Your task to perform on an android device: find snoozed emails in the gmail app Image 0: 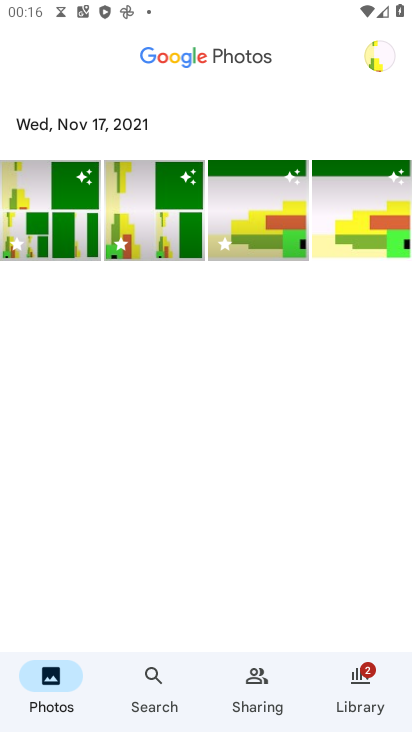
Step 0: press back button
Your task to perform on an android device: find snoozed emails in the gmail app Image 1: 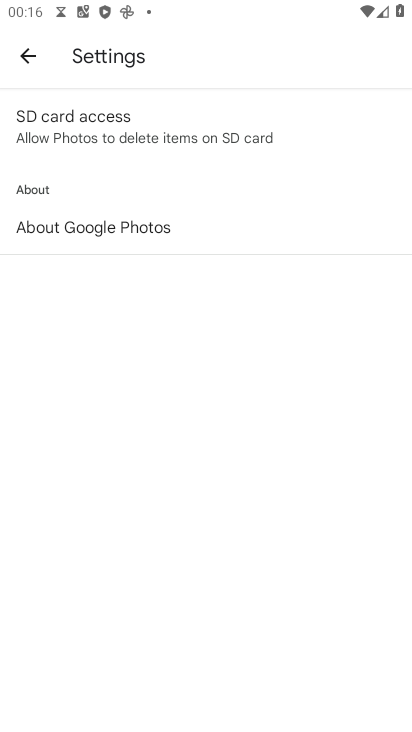
Step 1: press back button
Your task to perform on an android device: find snoozed emails in the gmail app Image 2: 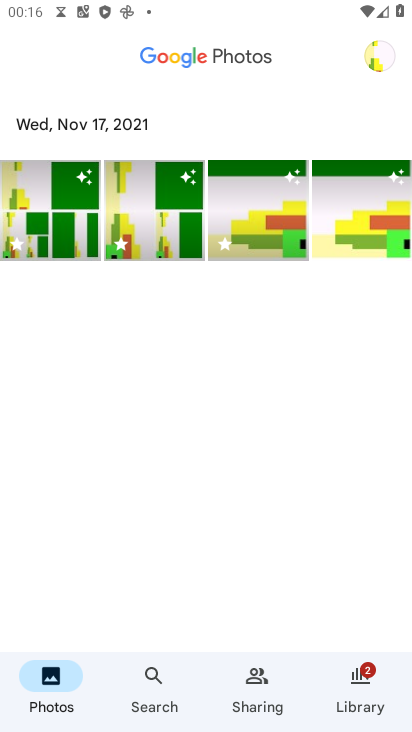
Step 2: press back button
Your task to perform on an android device: find snoozed emails in the gmail app Image 3: 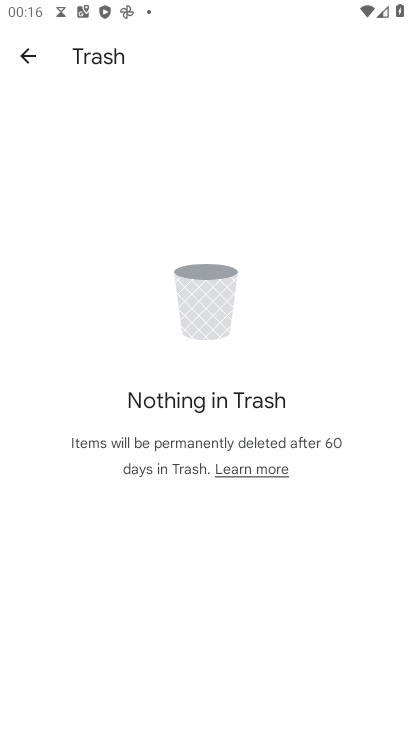
Step 3: press back button
Your task to perform on an android device: find snoozed emails in the gmail app Image 4: 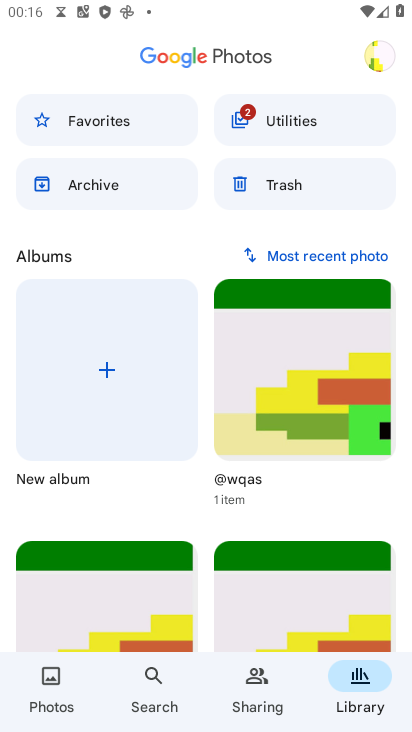
Step 4: press back button
Your task to perform on an android device: find snoozed emails in the gmail app Image 5: 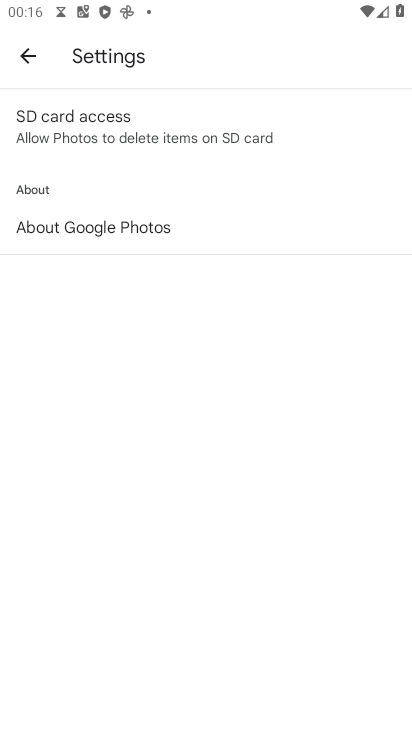
Step 5: press back button
Your task to perform on an android device: find snoozed emails in the gmail app Image 6: 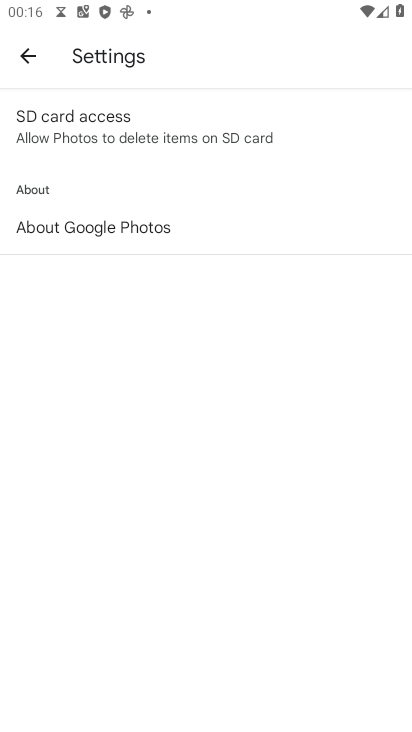
Step 6: press back button
Your task to perform on an android device: find snoozed emails in the gmail app Image 7: 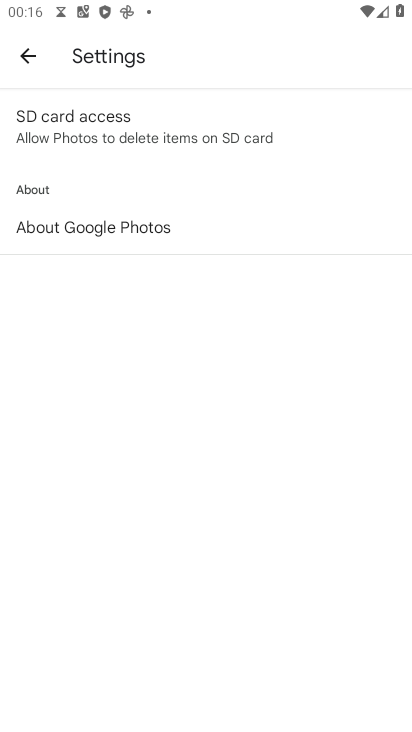
Step 7: press back button
Your task to perform on an android device: find snoozed emails in the gmail app Image 8: 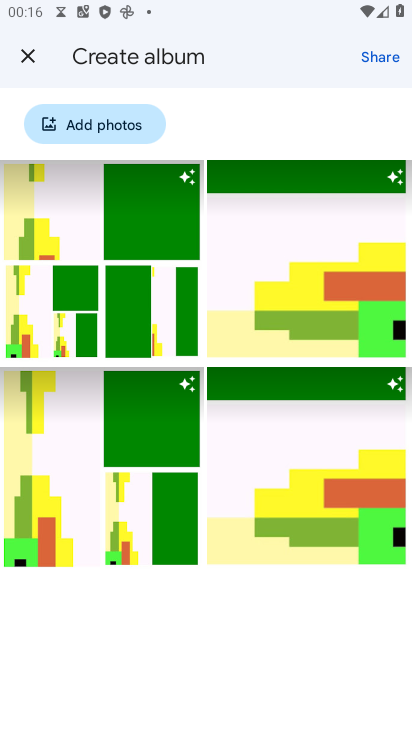
Step 8: press back button
Your task to perform on an android device: find snoozed emails in the gmail app Image 9: 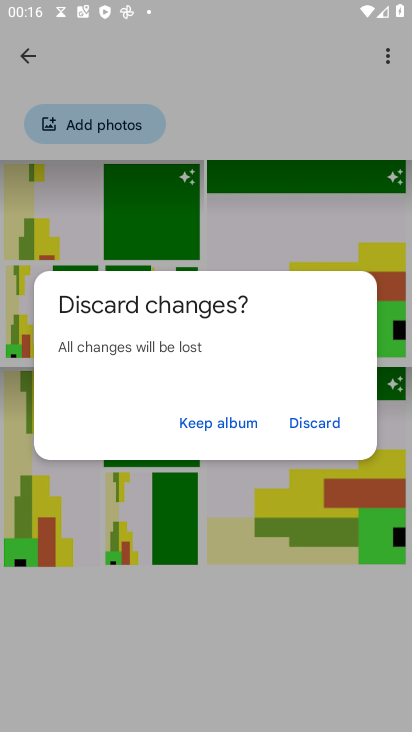
Step 9: press back button
Your task to perform on an android device: find snoozed emails in the gmail app Image 10: 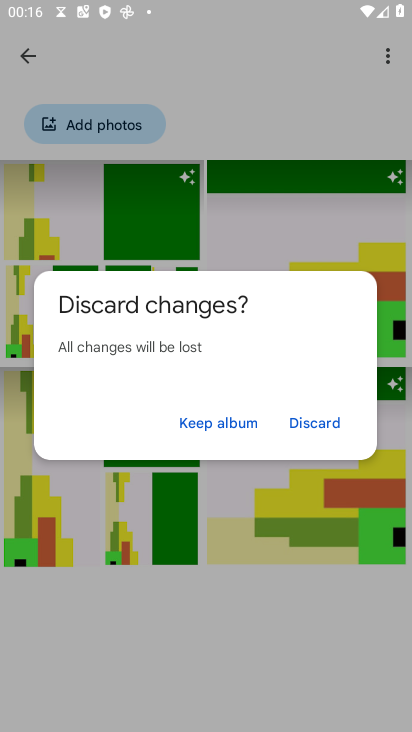
Step 10: press back button
Your task to perform on an android device: find snoozed emails in the gmail app Image 11: 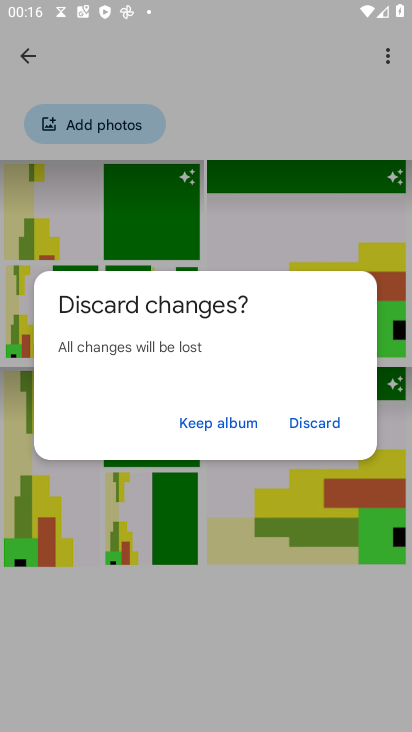
Step 11: press back button
Your task to perform on an android device: find snoozed emails in the gmail app Image 12: 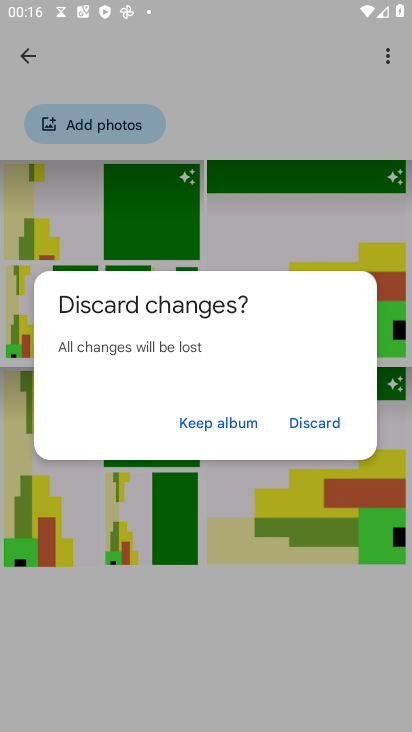
Step 12: press back button
Your task to perform on an android device: find snoozed emails in the gmail app Image 13: 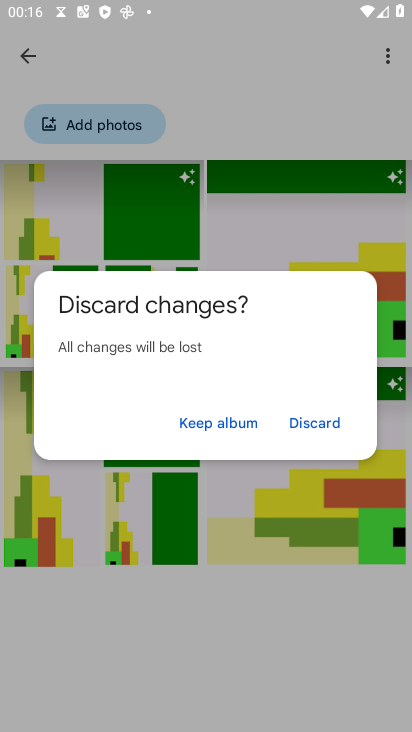
Step 13: press home button
Your task to perform on an android device: find snoozed emails in the gmail app Image 14: 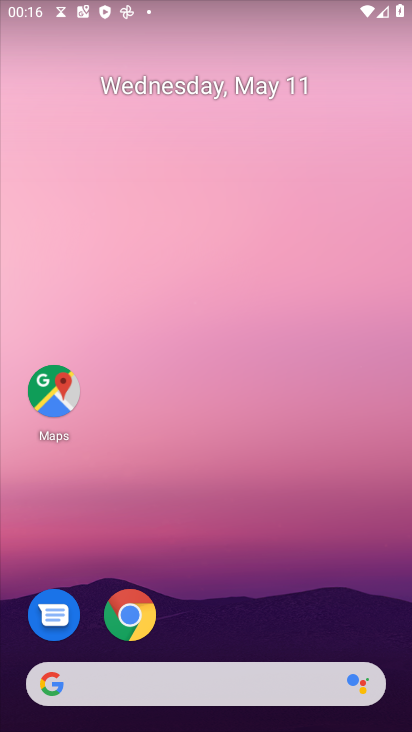
Step 14: drag from (191, 561) to (189, 143)
Your task to perform on an android device: find snoozed emails in the gmail app Image 15: 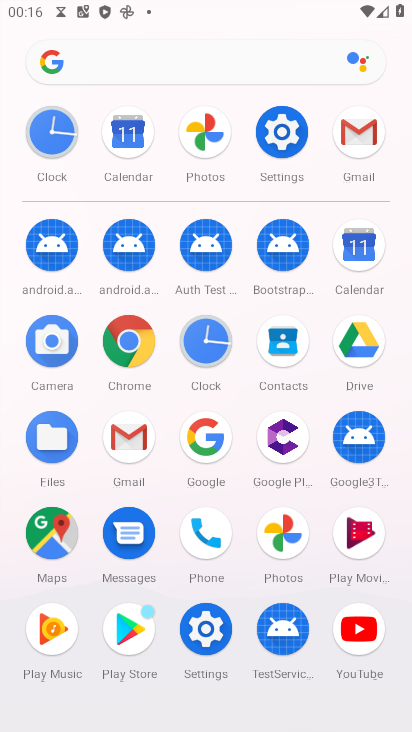
Step 15: click (361, 132)
Your task to perform on an android device: find snoozed emails in the gmail app Image 16: 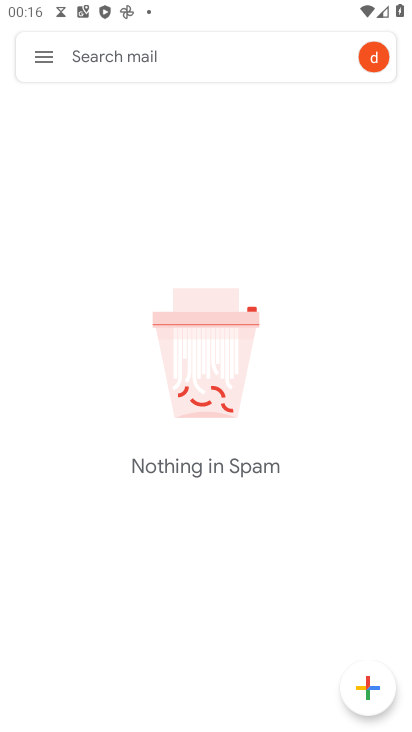
Step 16: click (45, 65)
Your task to perform on an android device: find snoozed emails in the gmail app Image 17: 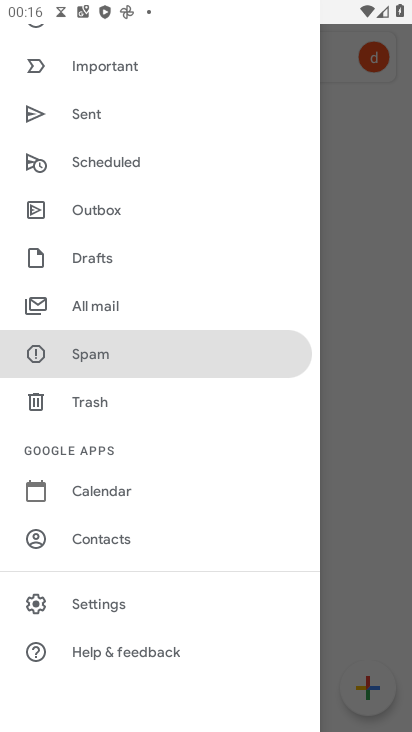
Step 17: drag from (133, 297) to (123, 407)
Your task to perform on an android device: find snoozed emails in the gmail app Image 18: 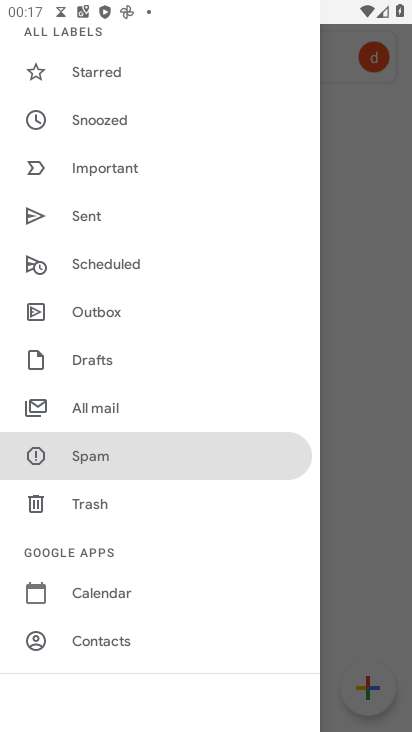
Step 18: click (110, 115)
Your task to perform on an android device: find snoozed emails in the gmail app Image 19: 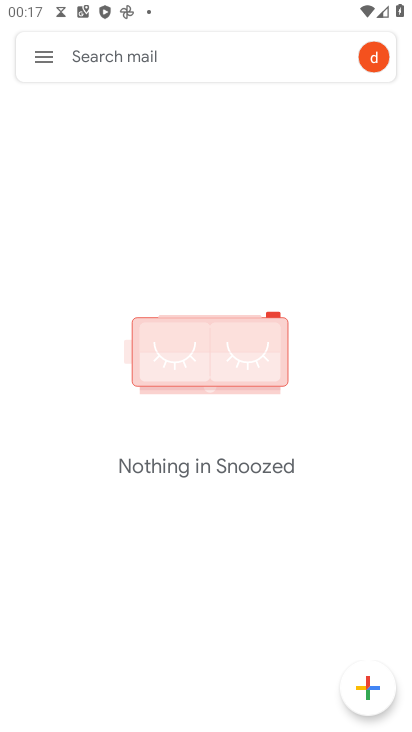
Step 19: click (44, 57)
Your task to perform on an android device: find snoozed emails in the gmail app Image 20: 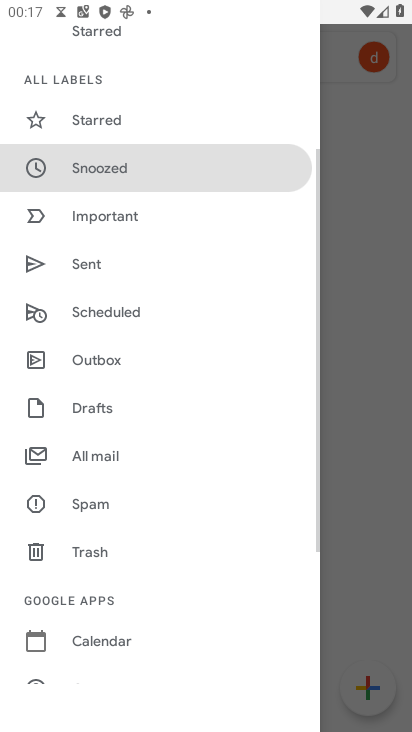
Step 20: drag from (134, 178) to (133, 343)
Your task to perform on an android device: find snoozed emails in the gmail app Image 21: 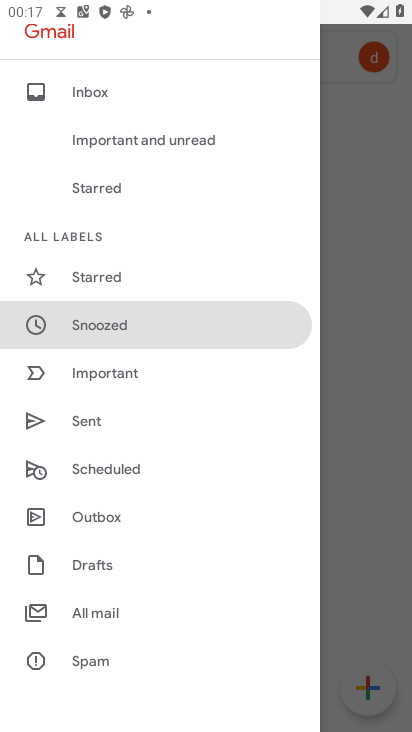
Step 21: drag from (109, 165) to (175, 285)
Your task to perform on an android device: find snoozed emails in the gmail app Image 22: 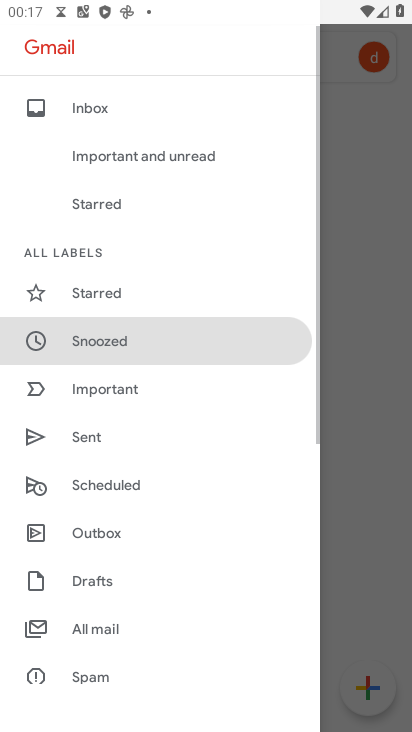
Step 22: click (100, 120)
Your task to perform on an android device: find snoozed emails in the gmail app Image 23: 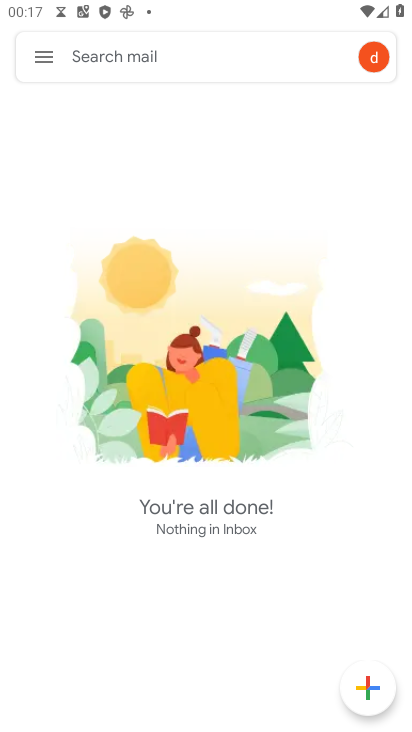
Step 23: task complete